Your task to perform on an android device: check the backup settings in the google photos Image 0: 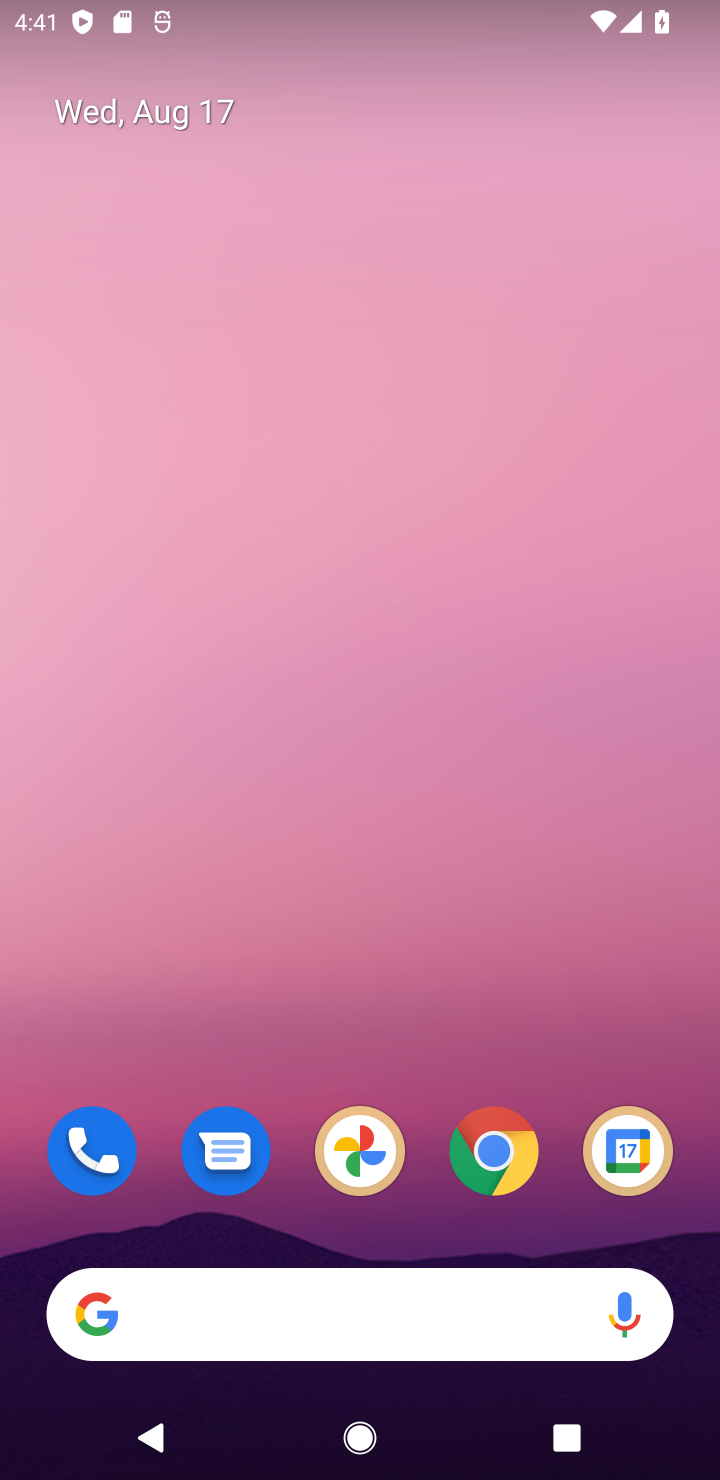
Step 0: click (364, 1174)
Your task to perform on an android device: check the backup settings in the google photos Image 1: 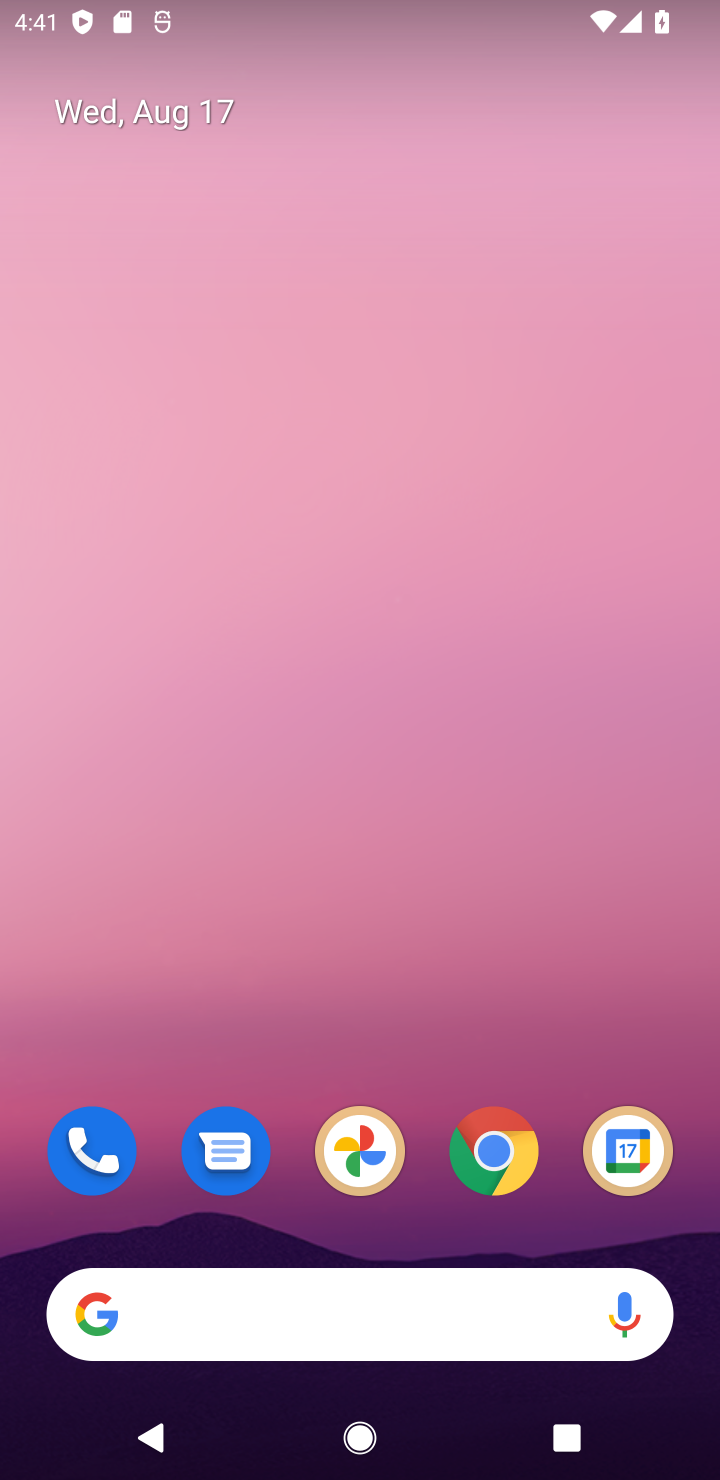
Step 1: click (406, 1142)
Your task to perform on an android device: check the backup settings in the google photos Image 2: 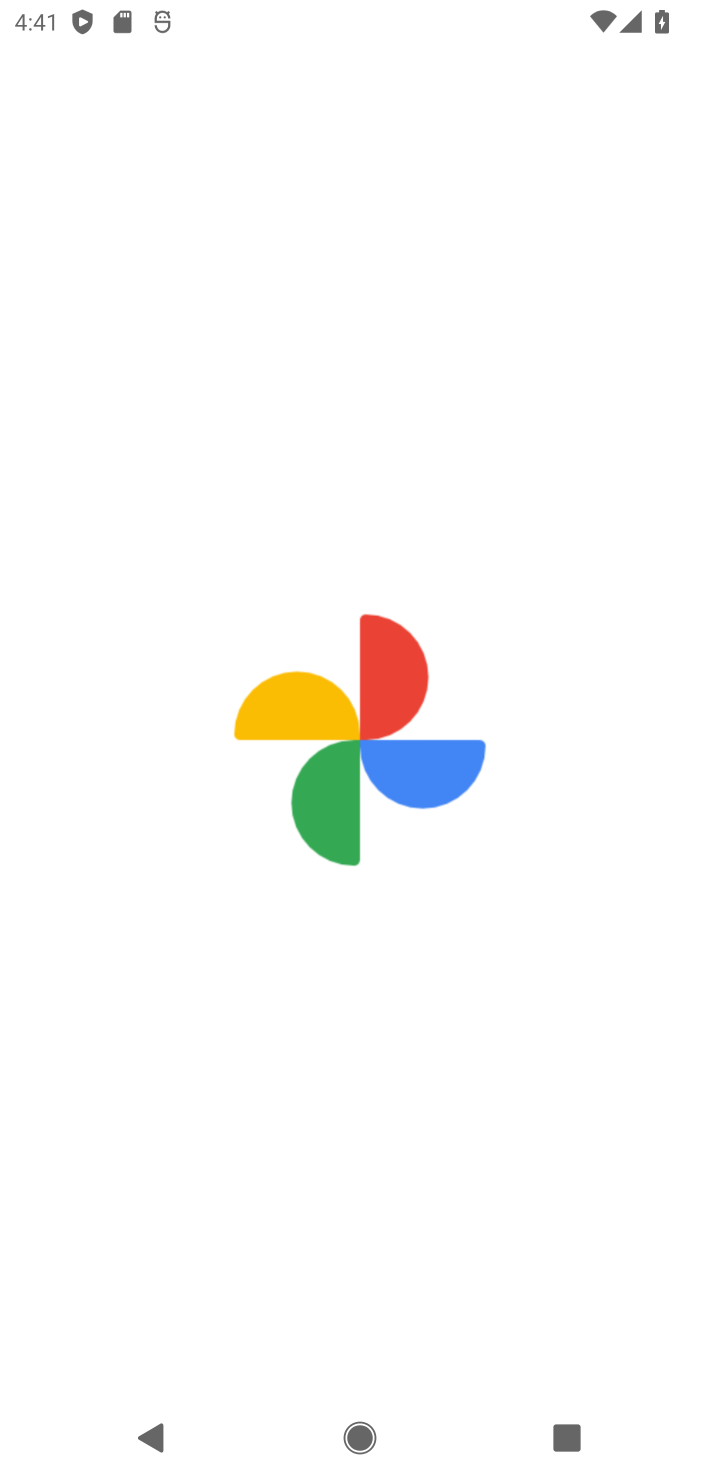
Step 2: task complete